Your task to perform on an android device: Search for Italian restaurants on Maps Image 0: 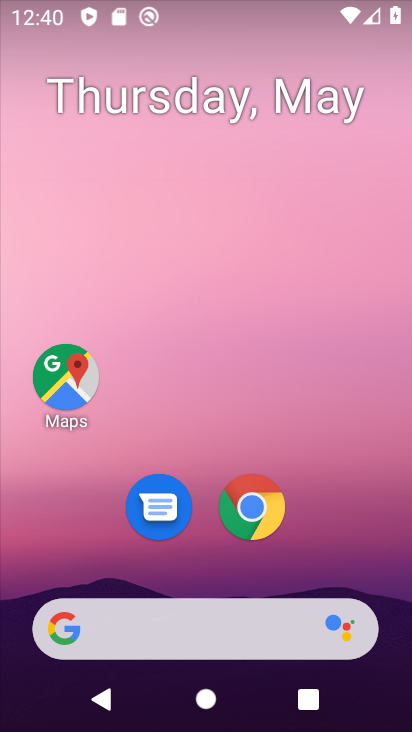
Step 0: drag from (162, 581) to (139, 0)
Your task to perform on an android device: Search for Italian restaurants on Maps Image 1: 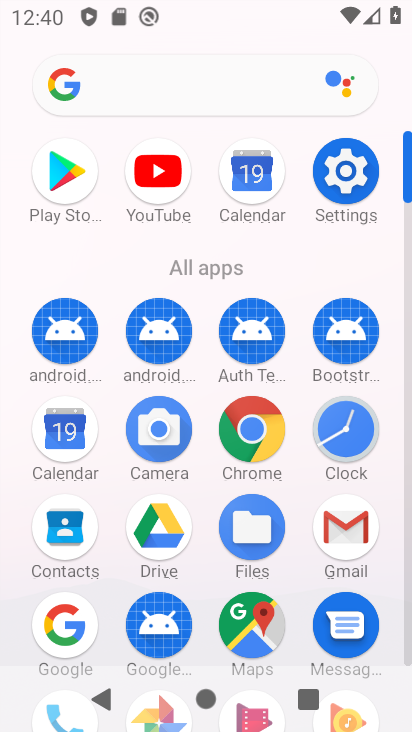
Step 1: click (259, 626)
Your task to perform on an android device: Search for Italian restaurants on Maps Image 2: 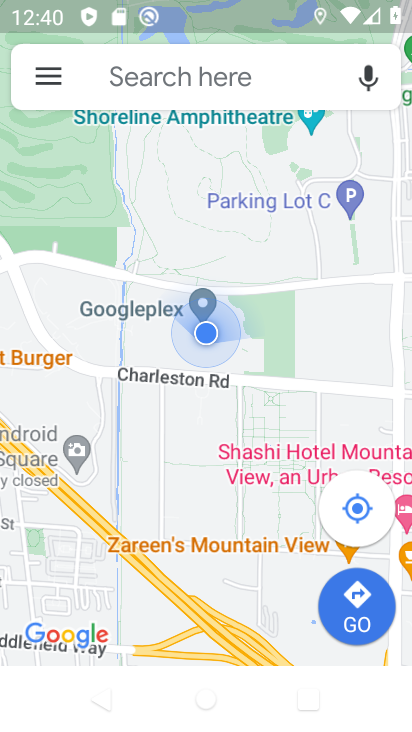
Step 2: click (184, 79)
Your task to perform on an android device: Search for Italian restaurants on Maps Image 3: 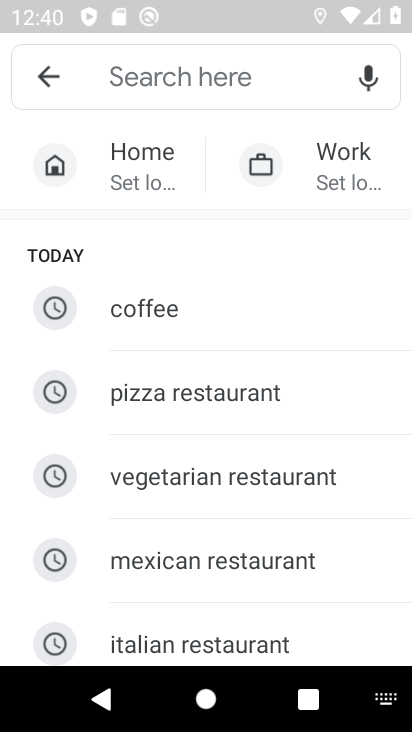
Step 3: click (187, 638)
Your task to perform on an android device: Search for Italian restaurants on Maps Image 4: 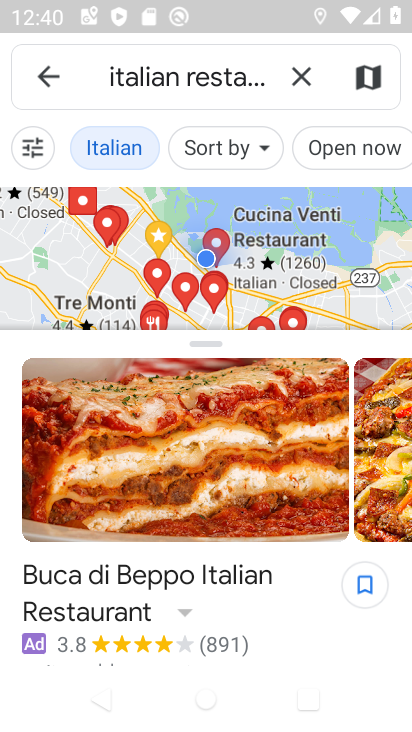
Step 4: task complete